Your task to perform on an android device: toggle location history Image 0: 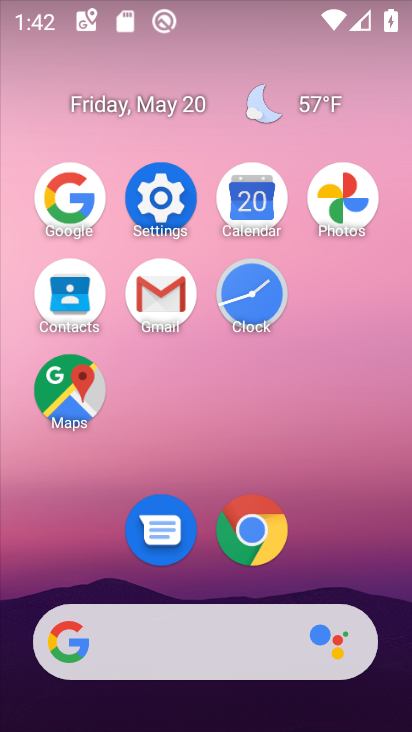
Step 0: click (176, 217)
Your task to perform on an android device: toggle location history Image 1: 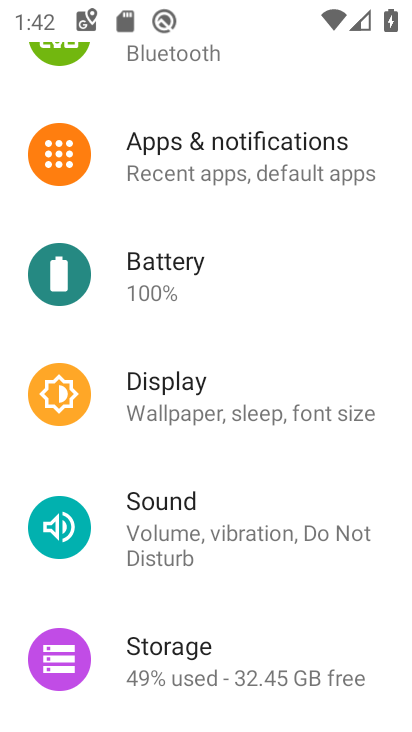
Step 1: drag from (289, 528) to (310, 172)
Your task to perform on an android device: toggle location history Image 2: 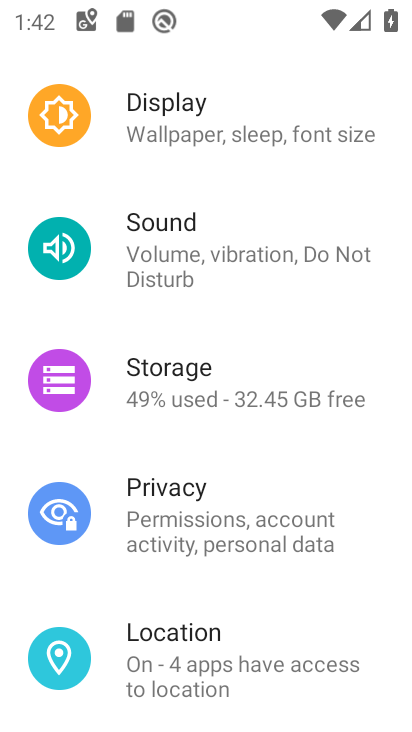
Step 2: drag from (231, 569) to (219, 190)
Your task to perform on an android device: toggle location history Image 3: 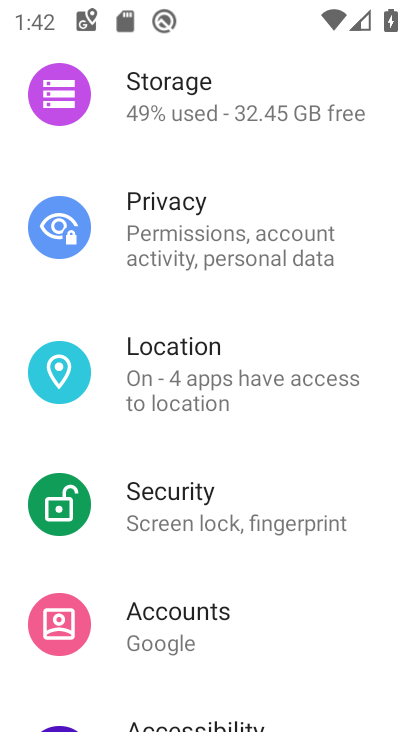
Step 3: click (212, 337)
Your task to perform on an android device: toggle location history Image 4: 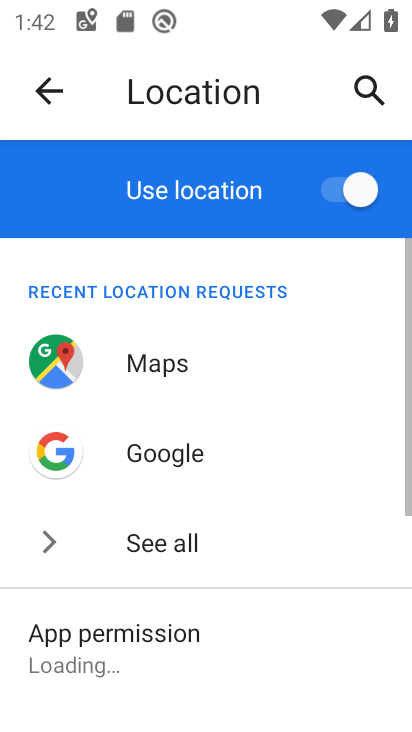
Step 4: drag from (225, 624) to (252, 202)
Your task to perform on an android device: toggle location history Image 5: 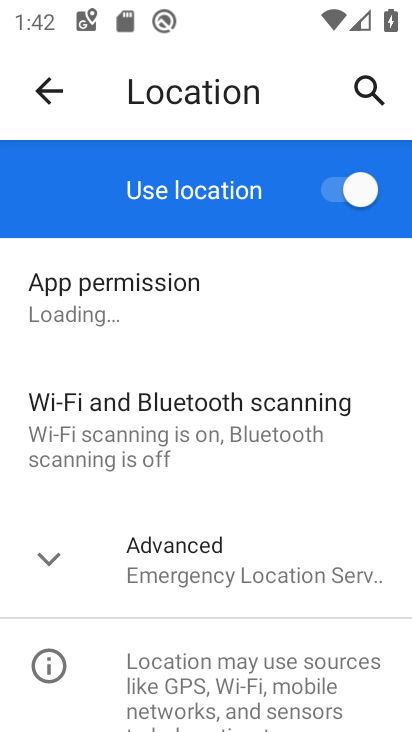
Step 5: click (222, 569)
Your task to perform on an android device: toggle location history Image 6: 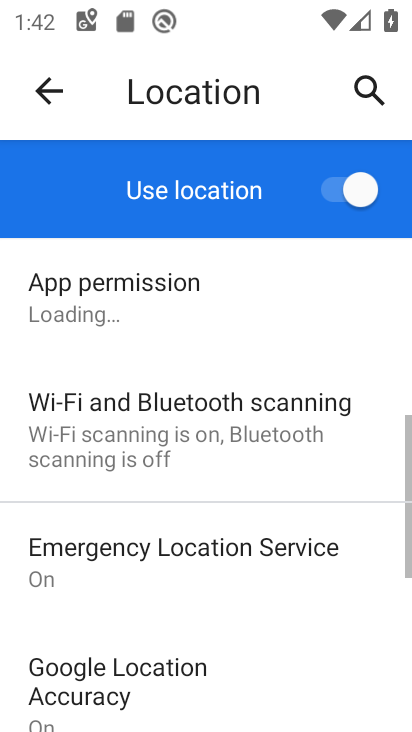
Step 6: drag from (229, 623) to (177, 203)
Your task to perform on an android device: toggle location history Image 7: 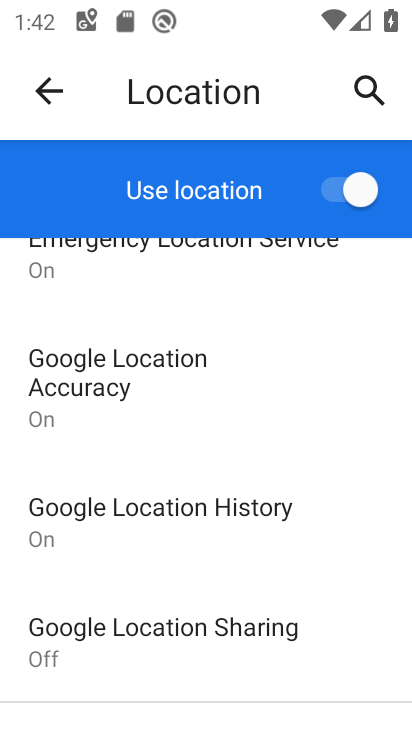
Step 7: click (219, 524)
Your task to perform on an android device: toggle location history Image 8: 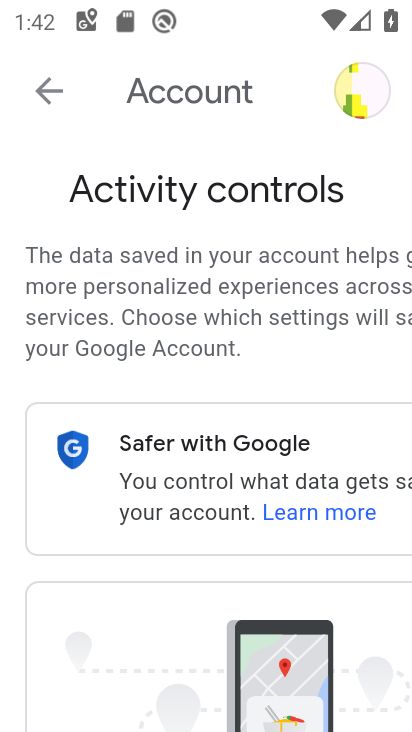
Step 8: drag from (215, 637) to (287, 205)
Your task to perform on an android device: toggle location history Image 9: 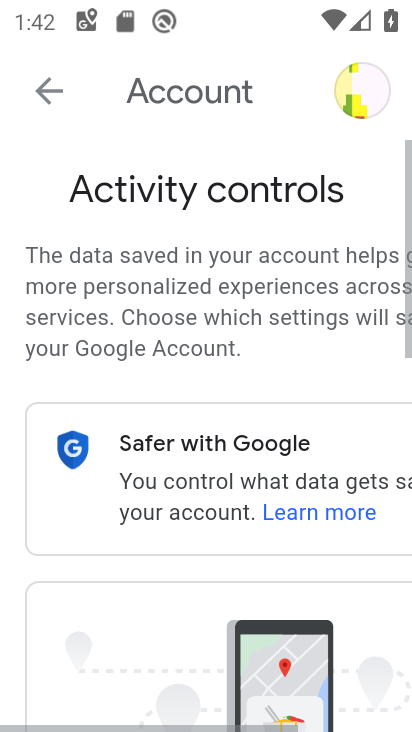
Step 9: drag from (254, 538) to (282, 156)
Your task to perform on an android device: toggle location history Image 10: 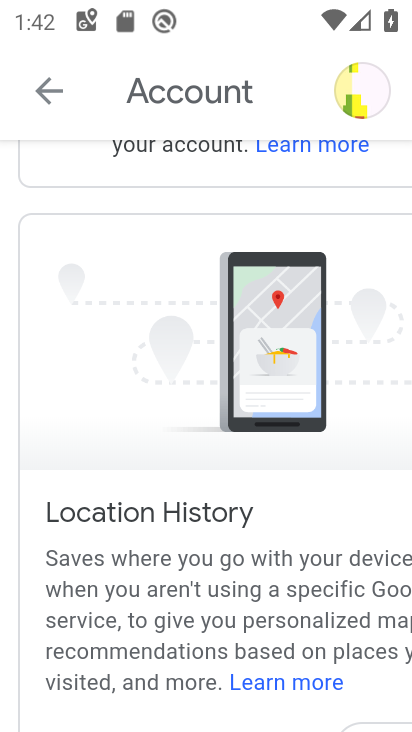
Step 10: drag from (288, 524) to (353, 195)
Your task to perform on an android device: toggle location history Image 11: 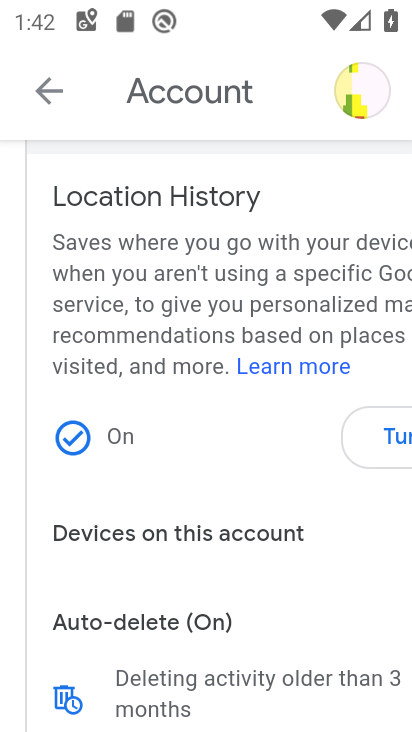
Step 11: click (365, 446)
Your task to perform on an android device: toggle location history Image 12: 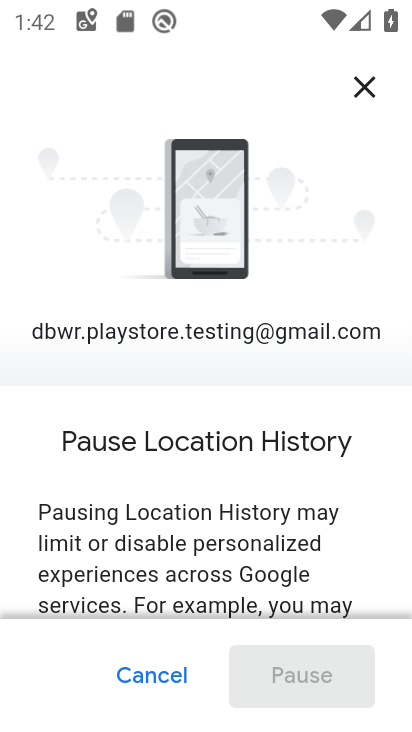
Step 12: drag from (263, 539) to (308, 143)
Your task to perform on an android device: toggle location history Image 13: 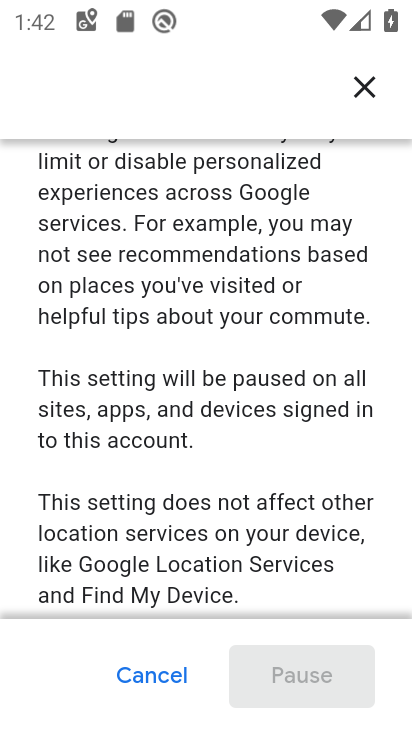
Step 13: drag from (246, 548) to (247, 138)
Your task to perform on an android device: toggle location history Image 14: 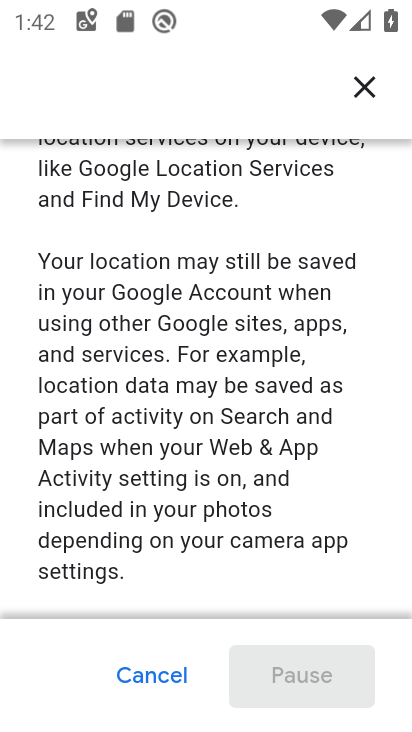
Step 14: drag from (279, 620) to (319, 309)
Your task to perform on an android device: toggle location history Image 15: 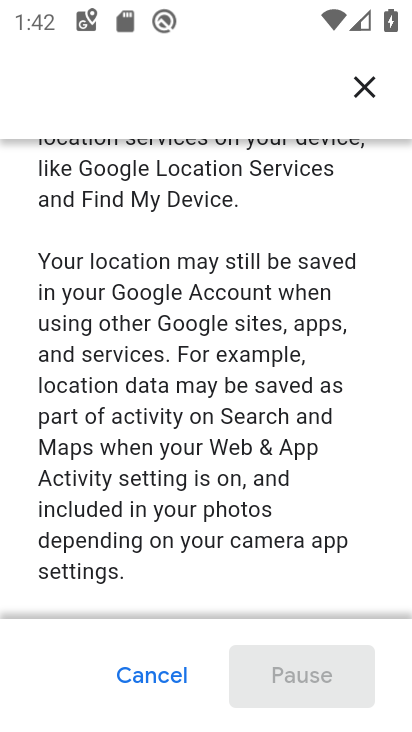
Step 15: drag from (246, 556) to (267, 232)
Your task to perform on an android device: toggle location history Image 16: 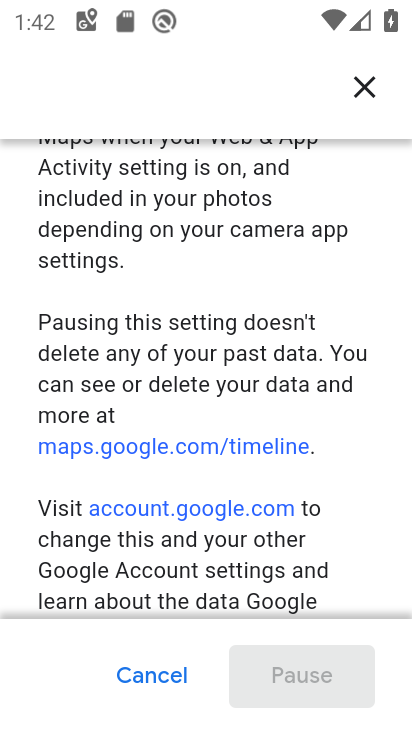
Step 16: drag from (242, 542) to (233, 194)
Your task to perform on an android device: toggle location history Image 17: 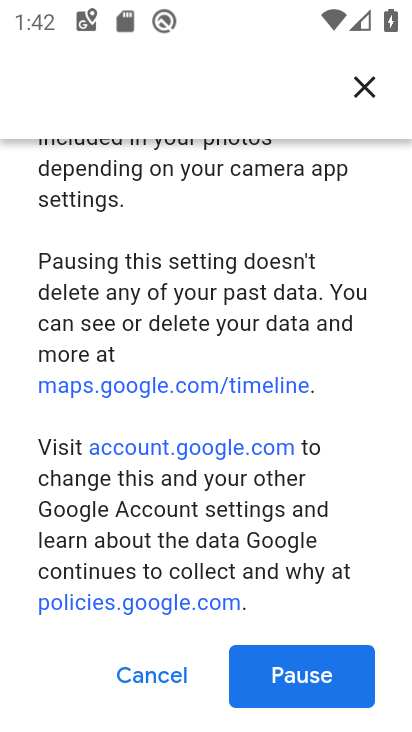
Step 17: click (268, 661)
Your task to perform on an android device: toggle location history Image 18: 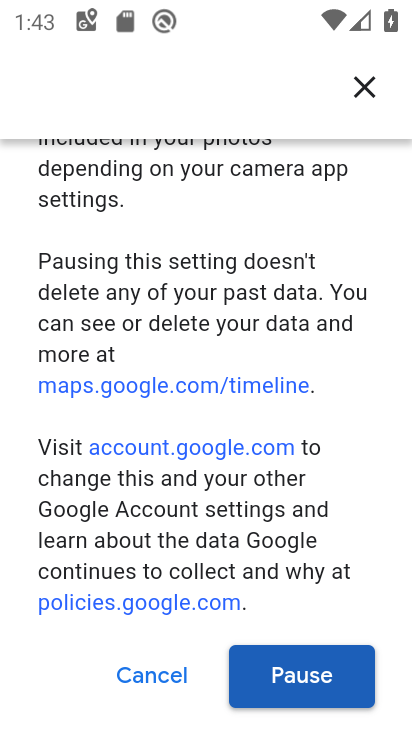
Step 18: click (277, 673)
Your task to perform on an android device: toggle location history Image 19: 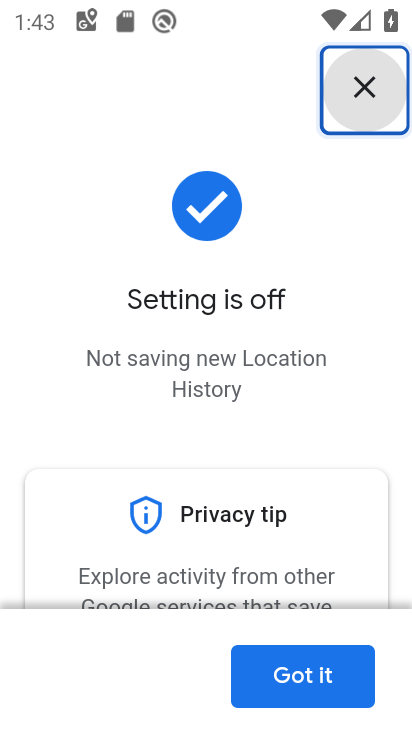
Step 19: click (278, 667)
Your task to perform on an android device: toggle location history Image 20: 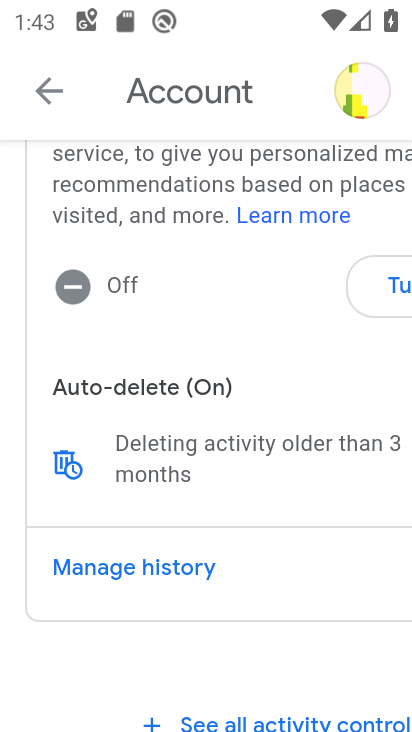
Step 20: task complete